Your task to perform on an android device: delete browsing data in the chrome app Image 0: 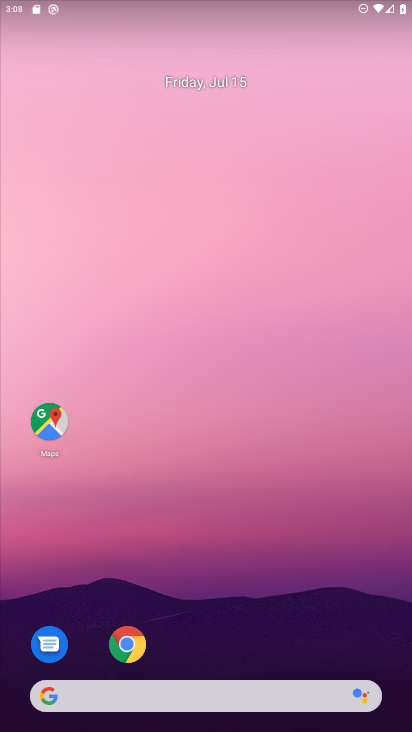
Step 0: click (127, 643)
Your task to perform on an android device: delete browsing data in the chrome app Image 1: 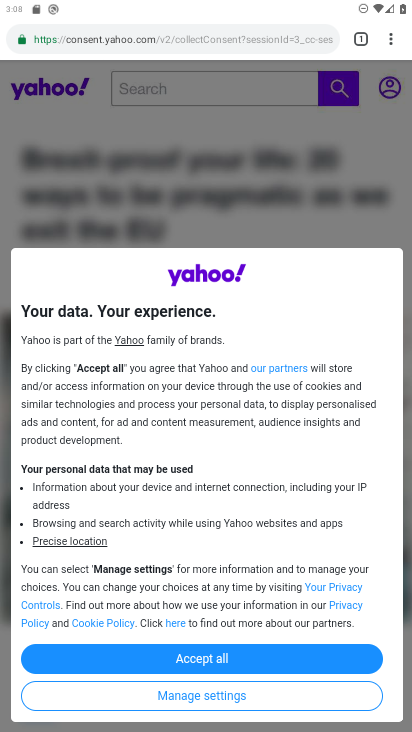
Step 1: click (389, 42)
Your task to perform on an android device: delete browsing data in the chrome app Image 2: 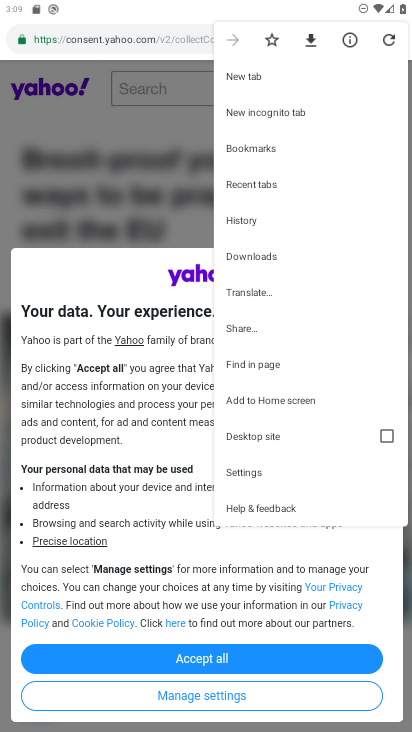
Step 2: click (268, 224)
Your task to perform on an android device: delete browsing data in the chrome app Image 3: 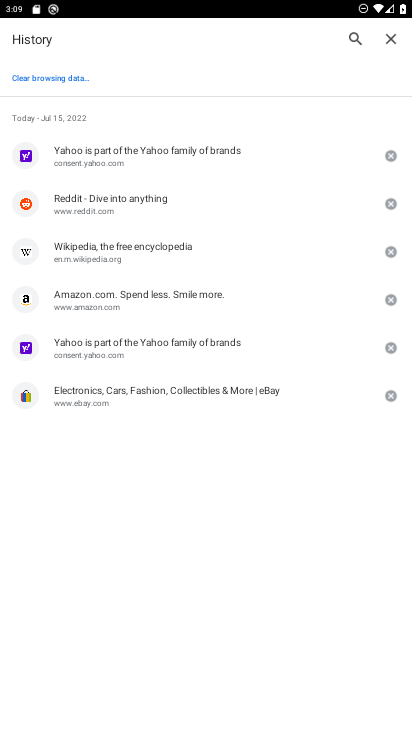
Step 3: click (69, 76)
Your task to perform on an android device: delete browsing data in the chrome app Image 4: 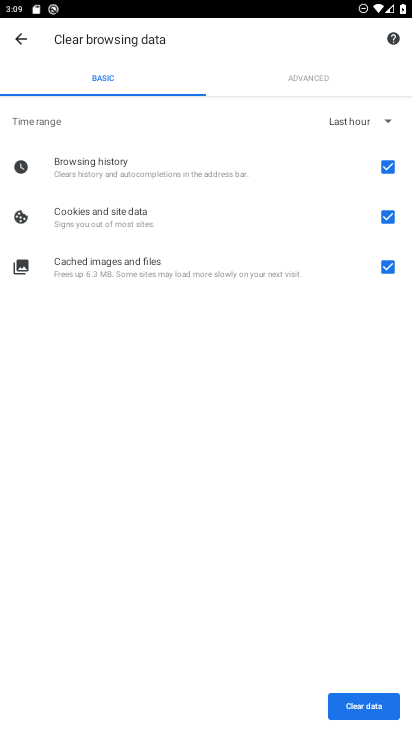
Step 4: click (384, 706)
Your task to perform on an android device: delete browsing data in the chrome app Image 5: 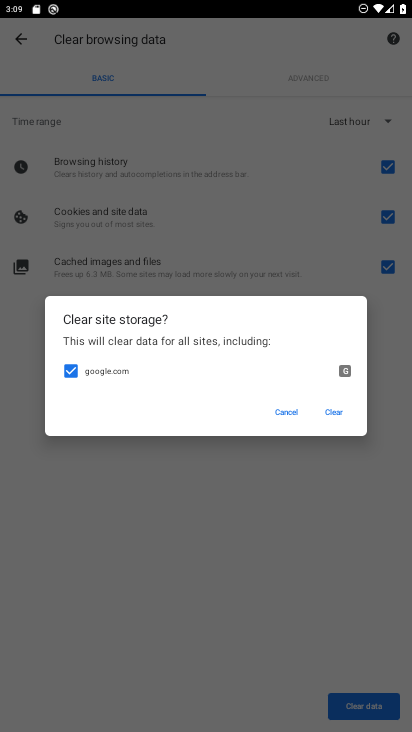
Step 5: click (330, 416)
Your task to perform on an android device: delete browsing data in the chrome app Image 6: 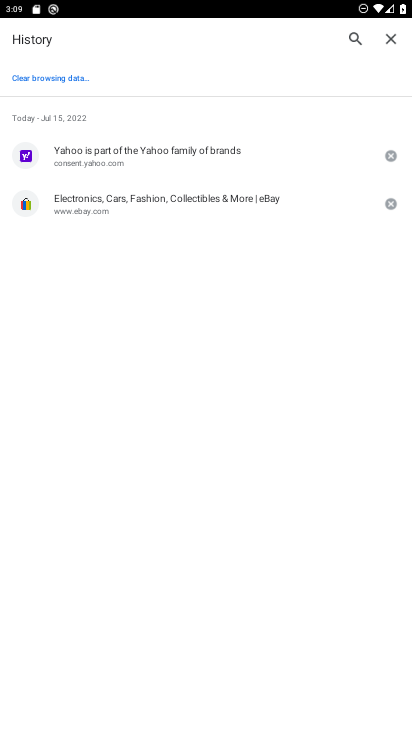
Step 6: task complete